Your task to perform on an android device: change notification settings in the gmail app Image 0: 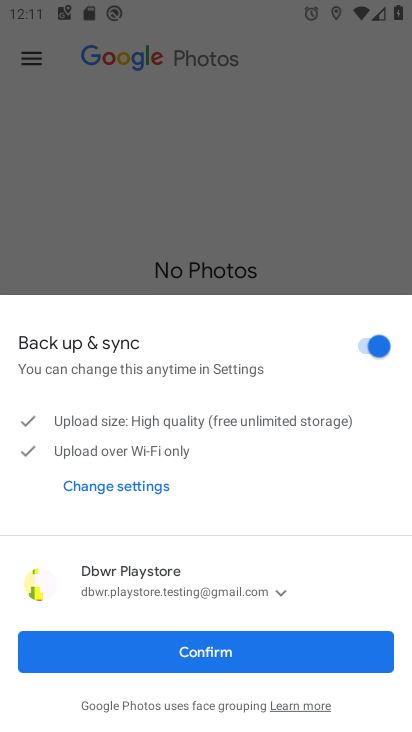
Step 0: press home button
Your task to perform on an android device: change notification settings in the gmail app Image 1: 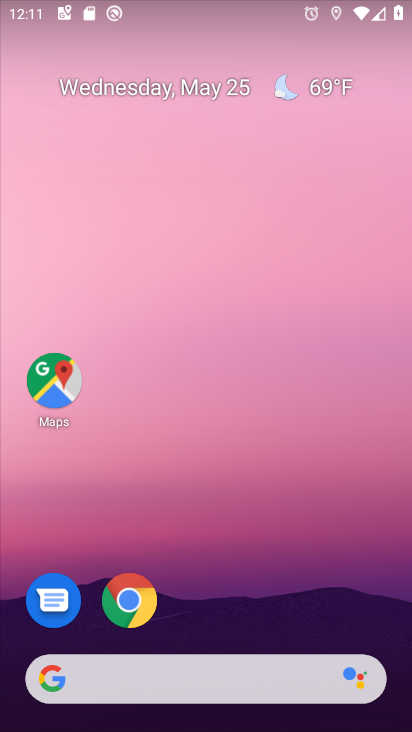
Step 1: drag from (389, 623) to (384, 136)
Your task to perform on an android device: change notification settings in the gmail app Image 2: 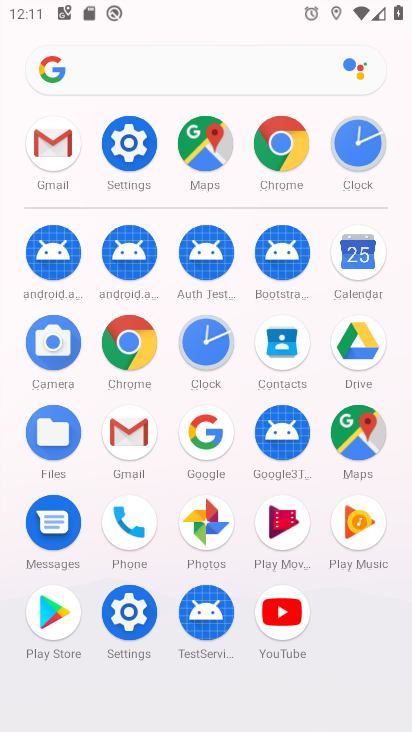
Step 2: click (122, 438)
Your task to perform on an android device: change notification settings in the gmail app Image 3: 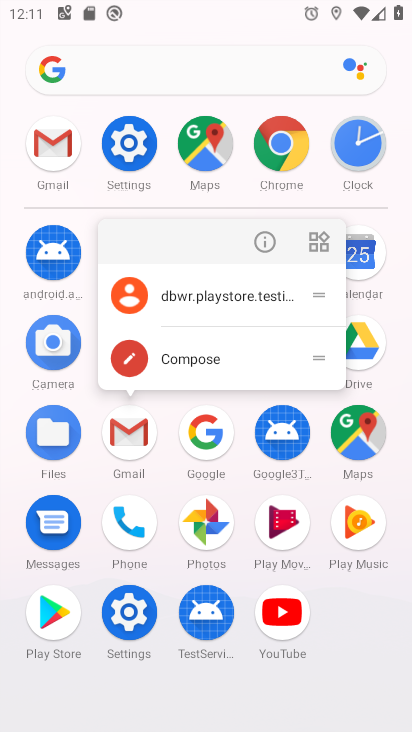
Step 3: click (122, 438)
Your task to perform on an android device: change notification settings in the gmail app Image 4: 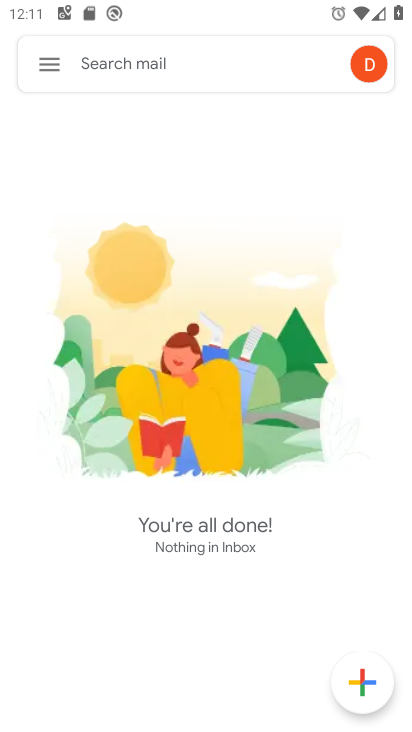
Step 4: click (51, 75)
Your task to perform on an android device: change notification settings in the gmail app Image 5: 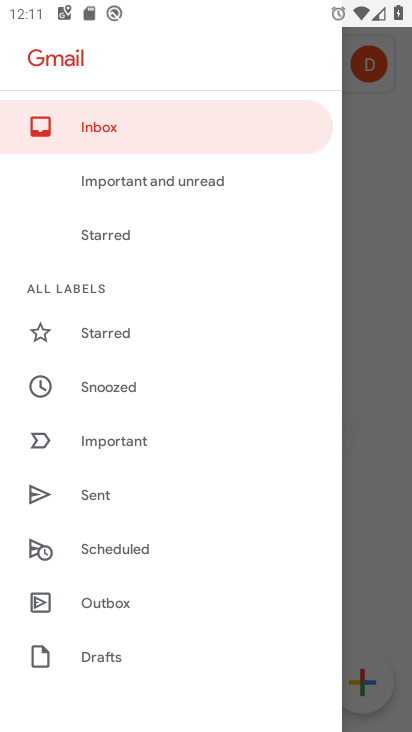
Step 5: drag from (272, 463) to (303, 348)
Your task to perform on an android device: change notification settings in the gmail app Image 6: 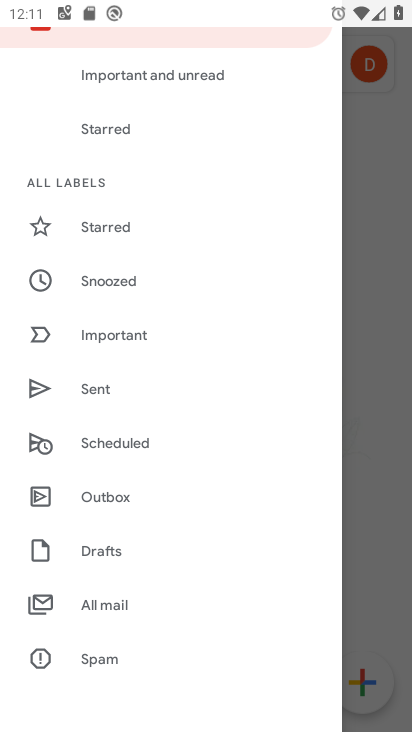
Step 6: drag from (282, 549) to (298, 439)
Your task to perform on an android device: change notification settings in the gmail app Image 7: 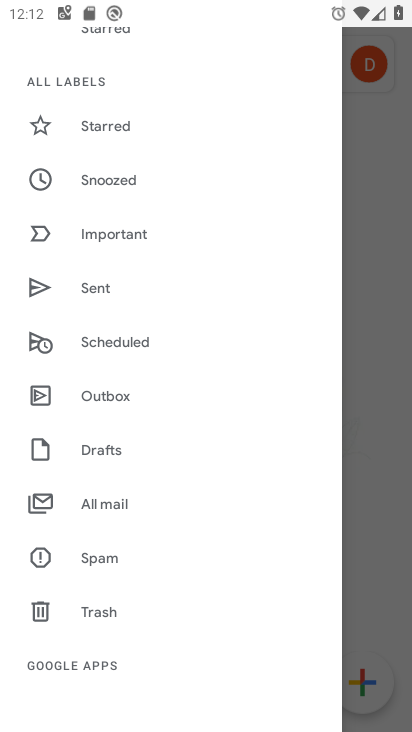
Step 7: drag from (286, 584) to (300, 478)
Your task to perform on an android device: change notification settings in the gmail app Image 8: 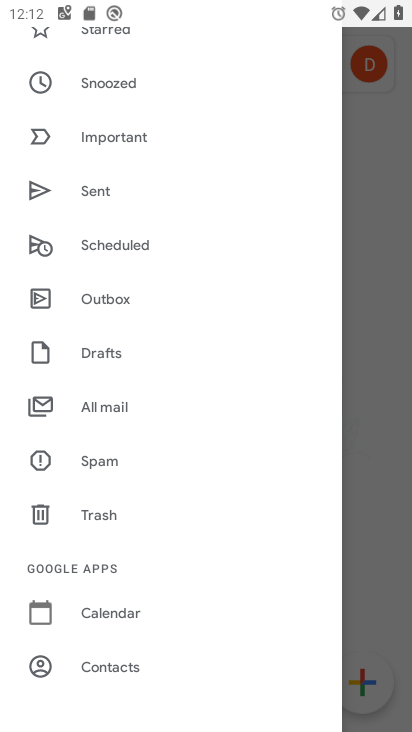
Step 8: drag from (278, 603) to (284, 505)
Your task to perform on an android device: change notification settings in the gmail app Image 9: 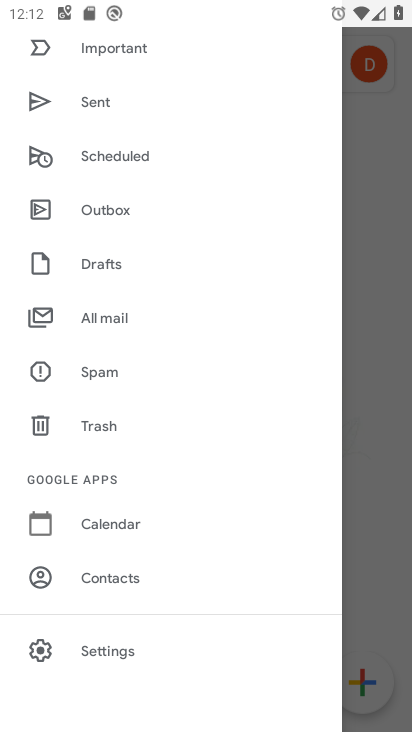
Step 9: drag from (277, 613) to (283, 476)
Your task to perform on an android device: change notification settings in the gmail app Image 10: 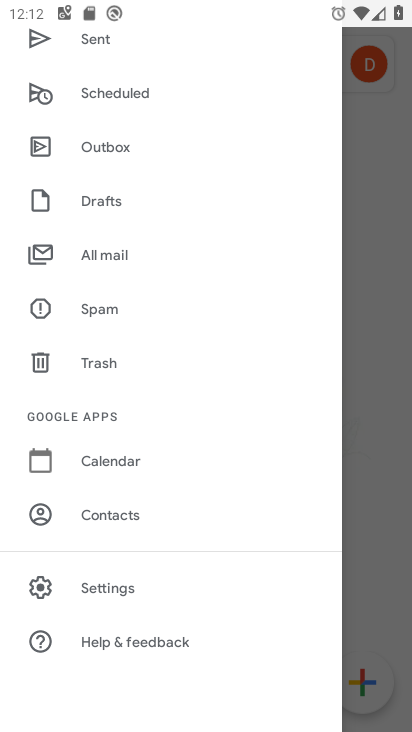
Step 10: click (176, 592)
Your task to perform on an android device: change notification settings in the gmail app Image 11: 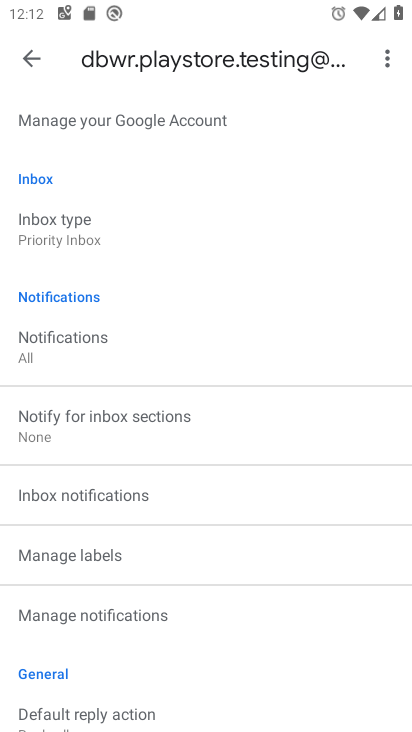
Step 11: drag from (296, 586) to (324, 459)
Your task to perform on an android device: change notification settings in the gmail app Image 12: 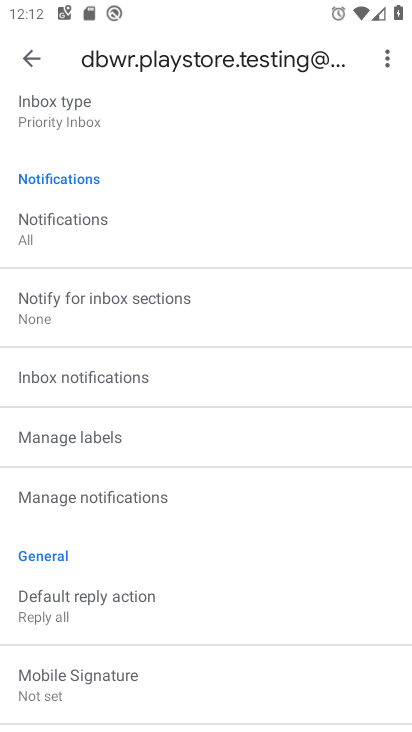
Step 12: drag from (322, 599) to (341, 534)
Your task to perform on an android device: change notification settings in the gmail app Image 13: 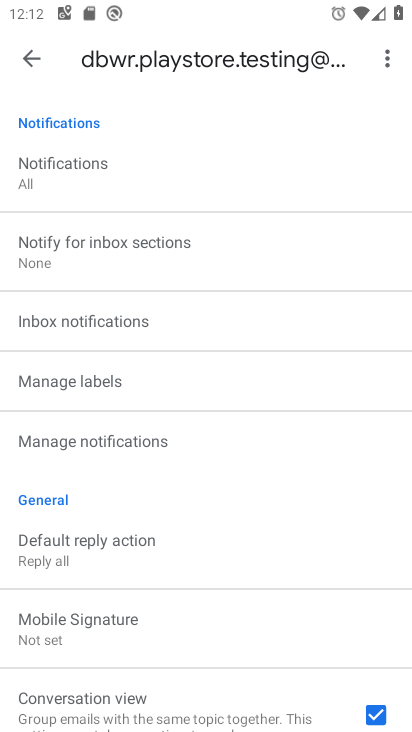
Step 13: drag from (325, 608) to (327, 523)
Your task to perform on an android device: change notification settings in the gmail app Image 14: 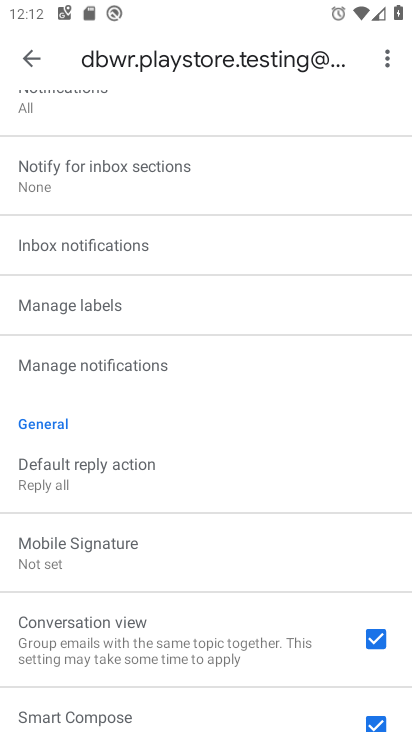
Step 14: drag from (322, 645) to (341, 563)
Your task to perform on an android device: change notification settings in the gmail app Image 15: 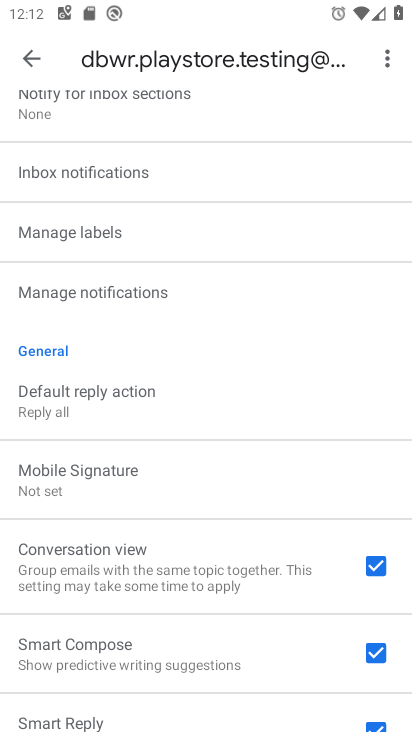
Step 15: drag from (321, 667) to (327, 604)
Your task to perform on an android device: change notification settings in the gmail app Image 16: 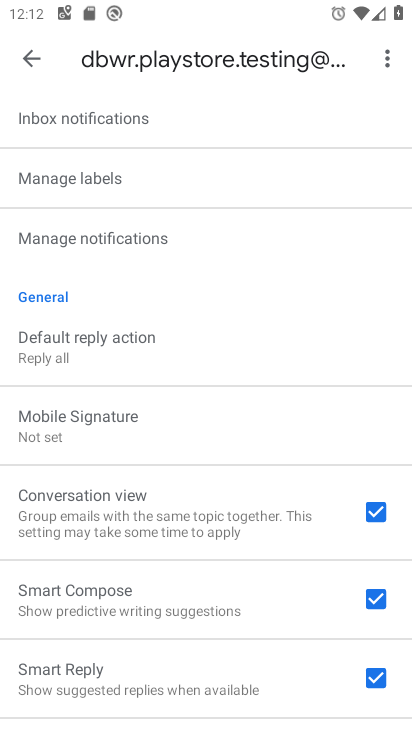
Step 16: drag from (319, 678) to (332, 611)
Your task to perform on an android device: change notification settings in the gmail app Image 17: 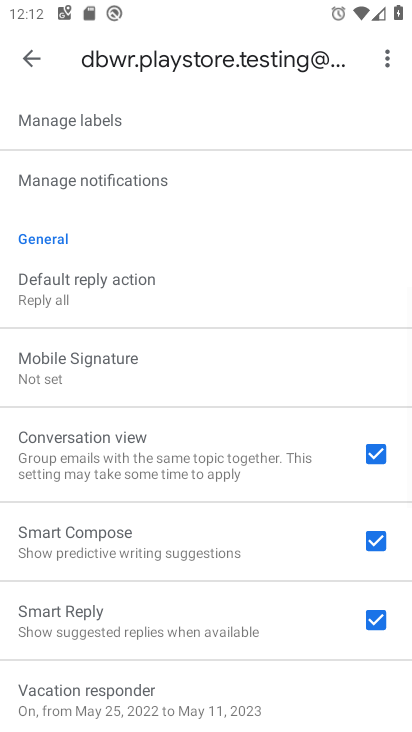
Step 17: drag from (312, 686) to (309, 598)
Your task to perform on an android device: change notification settings in the gmail app Image 18: 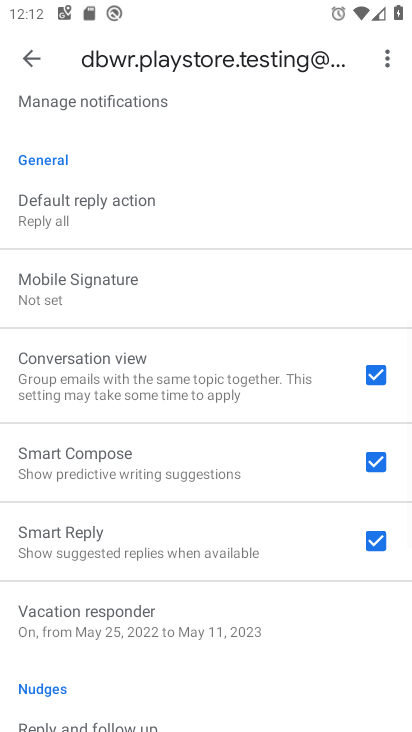
Step 18: drag from (308, 666) to (333, 603)
Your task to perform on an android device: change notification settings in the gmail app Image 19: 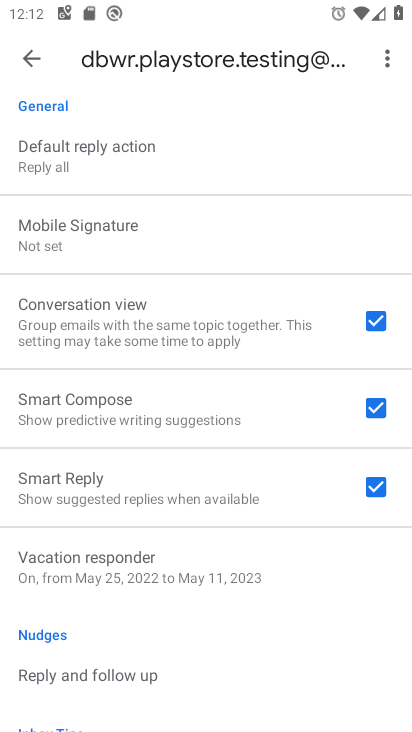
Step 19: drag from (304, 263) to (283, 334)
Your task to perform on an android device: change notification settings in the gmail app Image 20: 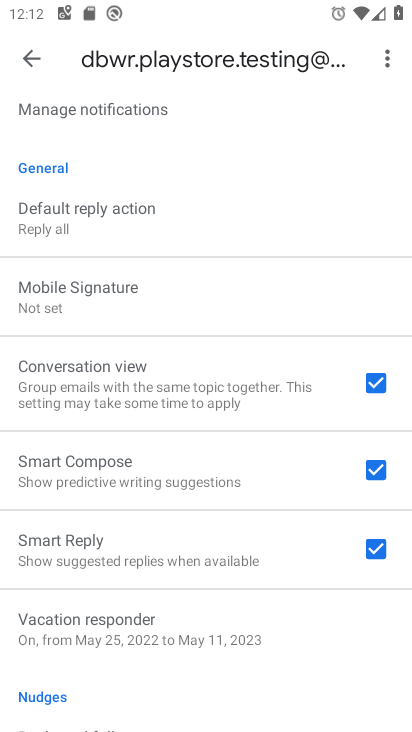
Step 20: drag from (279, 251) to (281, 353)
Your task to perform on an android device: change notification settings in the gmail app Image 21: 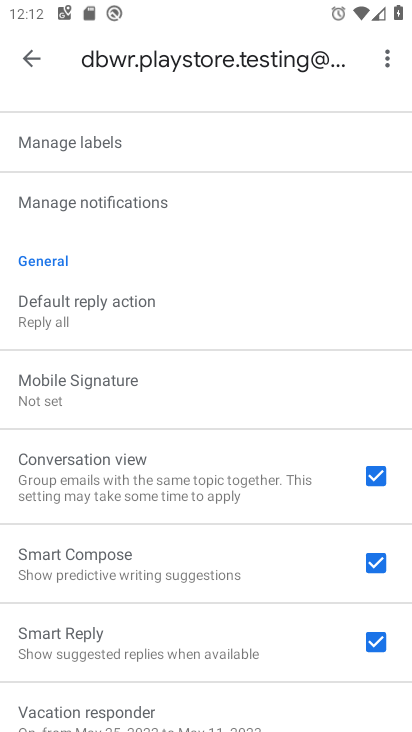
Step 21: drag from (277, 271) to (257, 352)
Your task to perform on an android device: change notification settings in the gmail app Image 22: 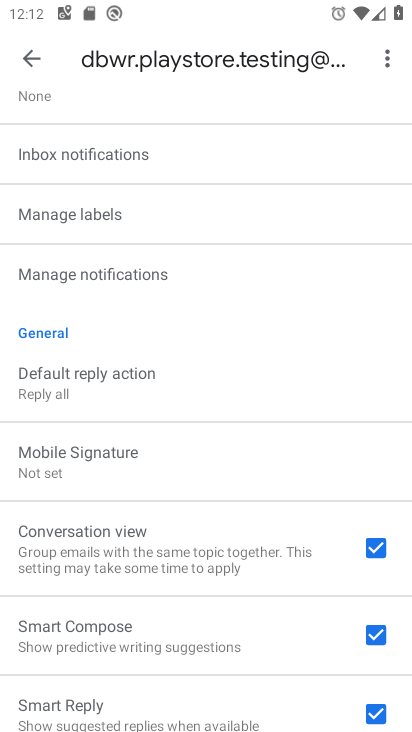
Step 22: drag from (263, 246) to (238, 342)
Your task to perform on an android device: change notification settings in the gmail app Image 23: 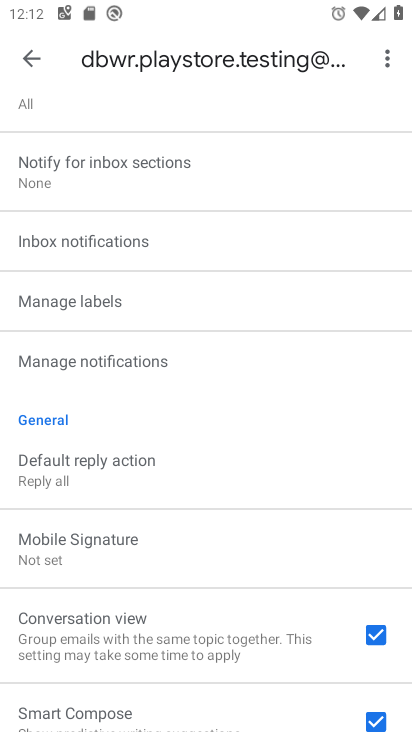
Step 23: drag from (249, 252) to (247, 312)
Your task to perform on an android device: change notification settings in the gmail app Image 24: 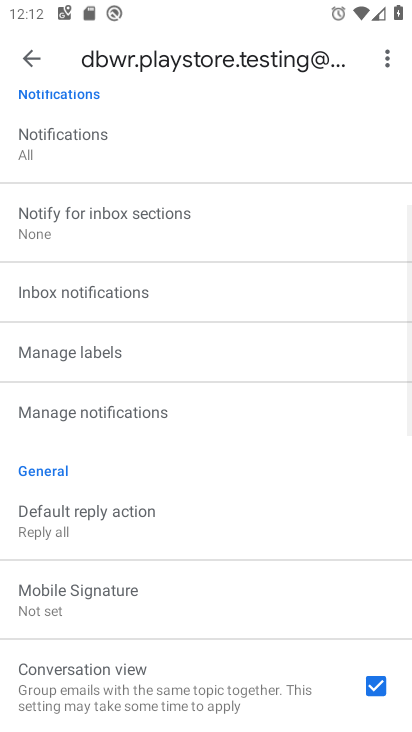
Step 24: drag from (268, 235) to (254, 316)
Your task to perform on an android device: change notification settings in the gmail app Image 25: 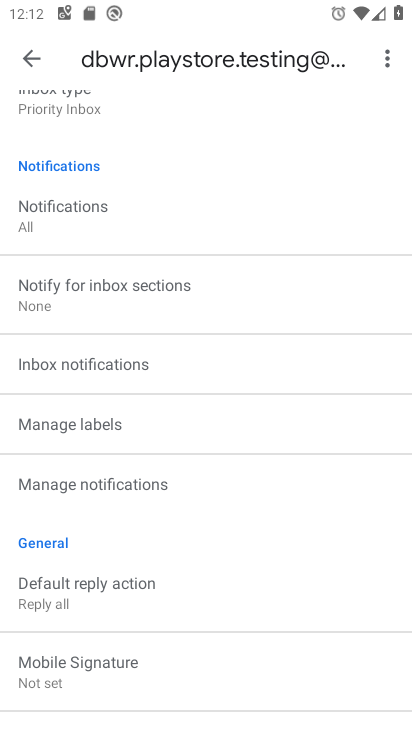
Step 25: click (83, 230)
Your task to perform on an android device: change notification settings in the gmail app Image 26: 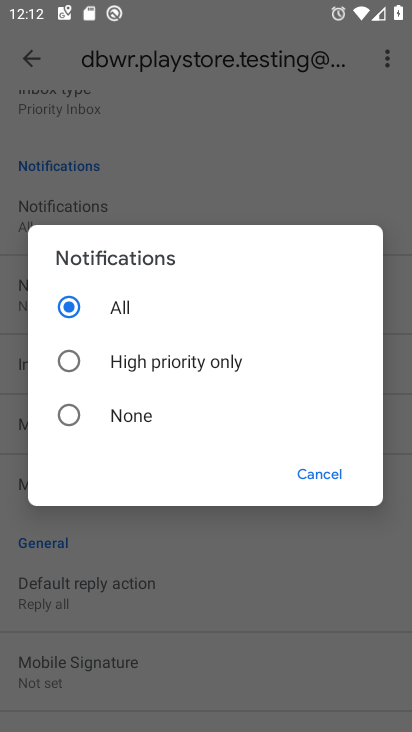
Step 26: click (187, 358)
Your task to perform on an android device: change notification settings in the gmail app Image 27: 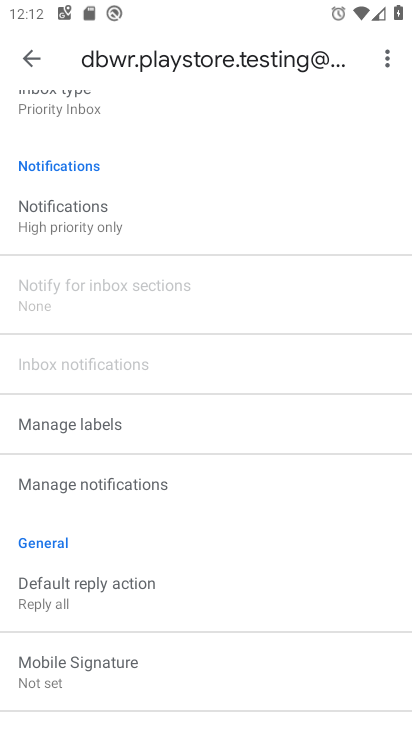
Step 27: task complete